Your task to perform on an android device: Open settings Image 0: 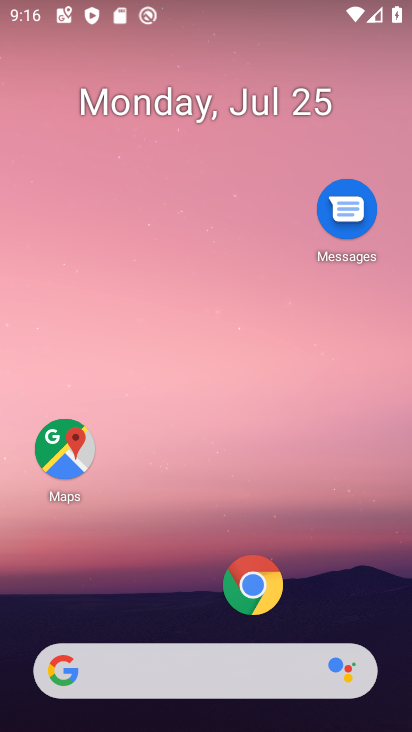
Step 0: drag from (150, 680) to (208, 47)
Your task to perform on an android device: Open settings Image 1: 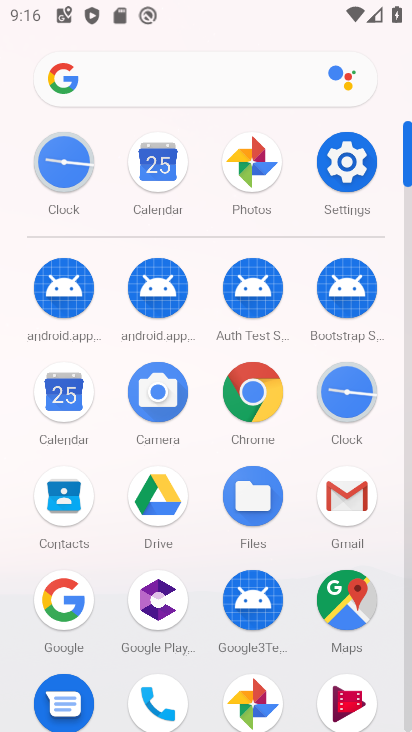
Step 1: click (337, 165)
Your task to perform on an android device: Open settings Image 2: 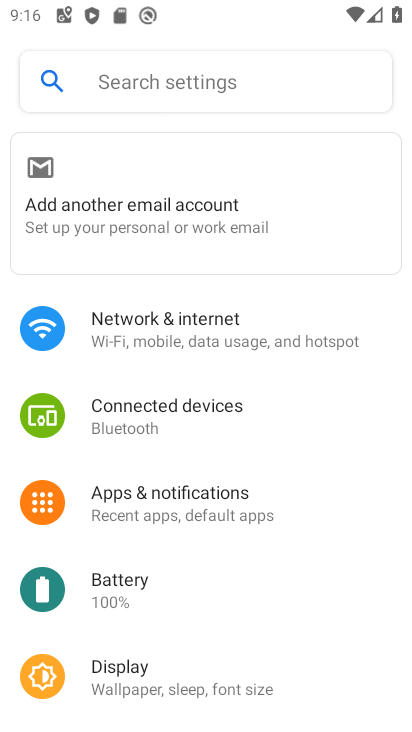
Step 2: task complete